Your task to perform on an android device: Open Google Maps Image 0: 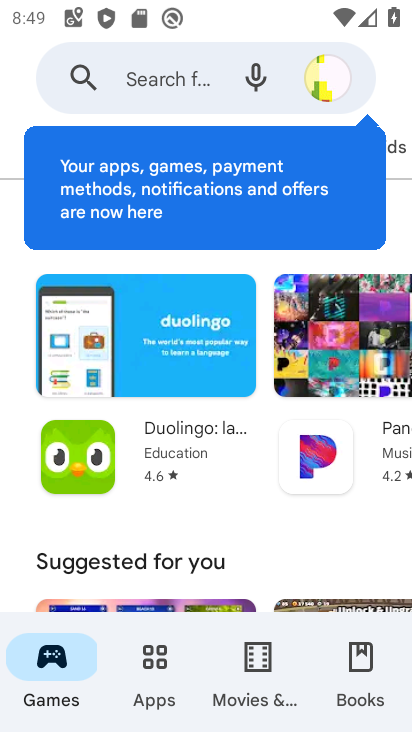
Step 0: press home button
Your task to perform on an android device: Open Google Maps Image 1: 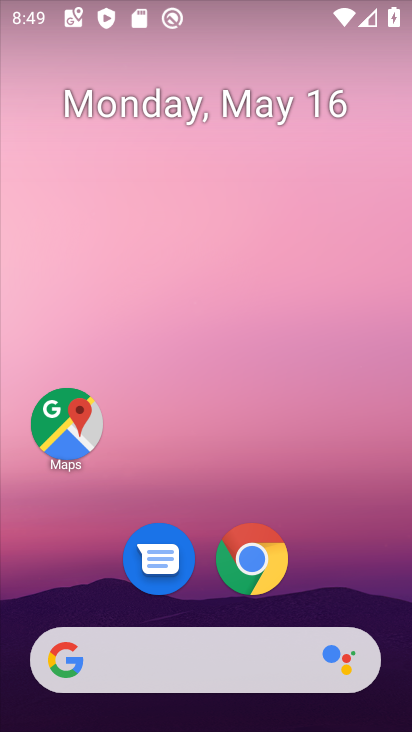
Step 1: drag from (327, 602) to (290, 52)
Your task to perform on an android device: Open Google Maps Image 2: 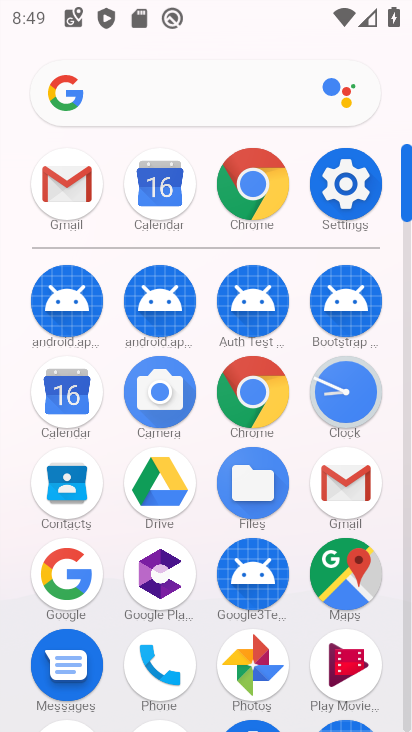
Step 2: click (344, 571)
Your task to perform on an android device: Open Google Maps Image 3: 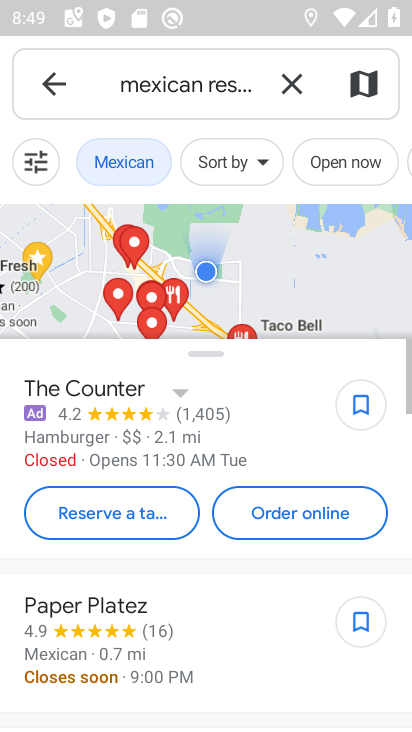
Step 3: click (54, 80)
Your task to perform on an android device: Open Google Maps Image 4: 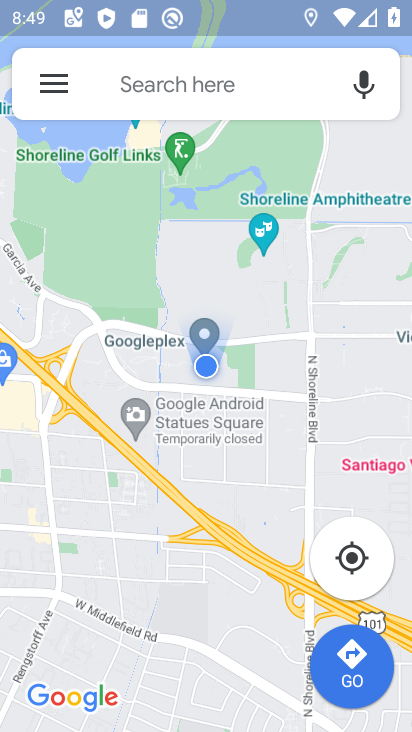
Step 4: task complete